Your task to perform on an android device: Open Chrome and go to the settings page Image 0: 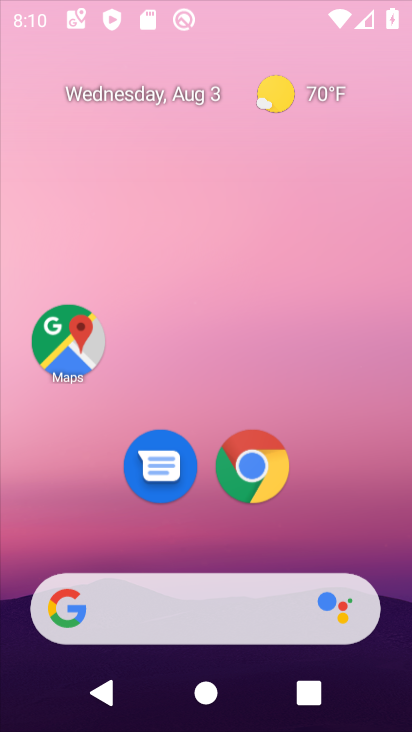
Step 0: drag from (390, 526) to (360, 83)
Your task to perform on an android device: Open Chrome and go to the settings page Image 1: 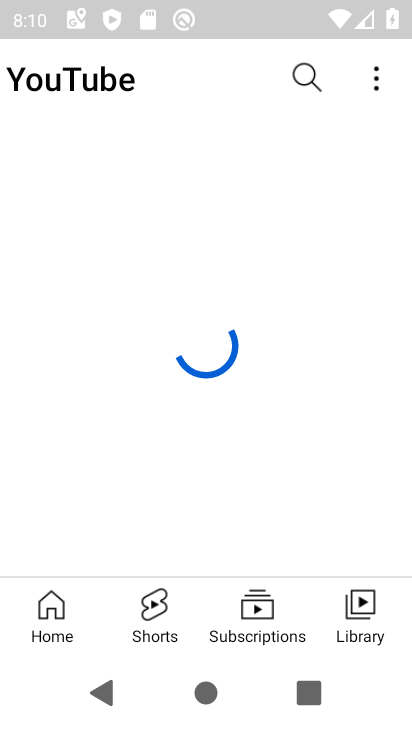
Step 1: press home button
Your task to perform on an android device: Open Chrome and go to the settings page Image 2: 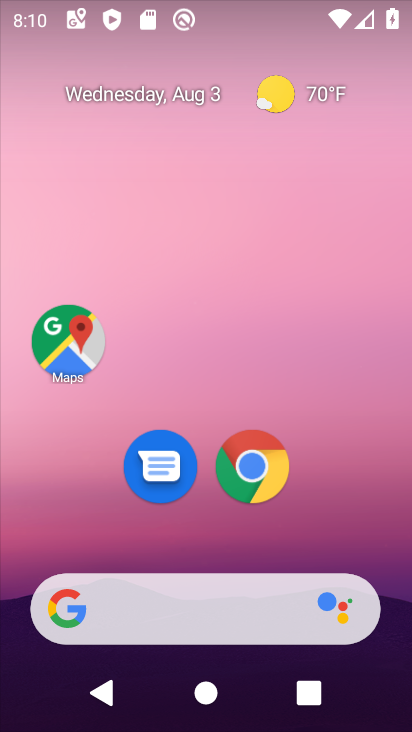
Step 2: drag from (360, 447) to (358, 105)
Your task to perform on an android device: Open Chrome and go to the settings page Image 3: 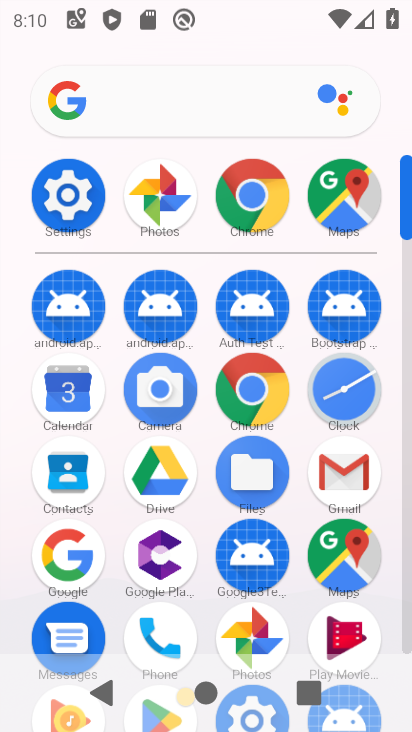
Step 3: click (251, 384)
Your task to perform on an android device: Open Chrome and go to the settings page Image 4: 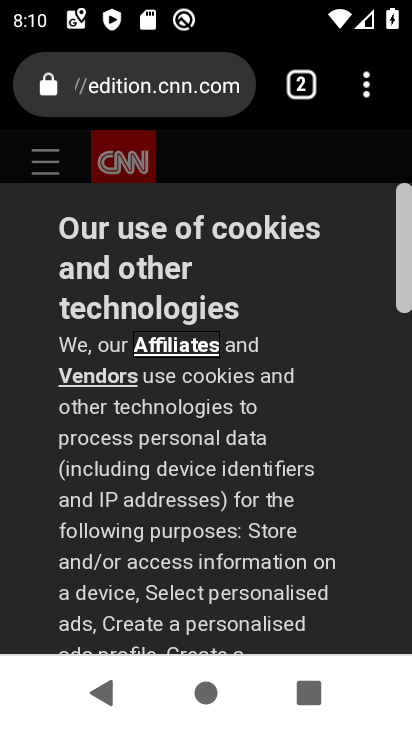
Step 4: task complete